Your task to perform on an android device: What's on my calendar tomorrow? Image 0: 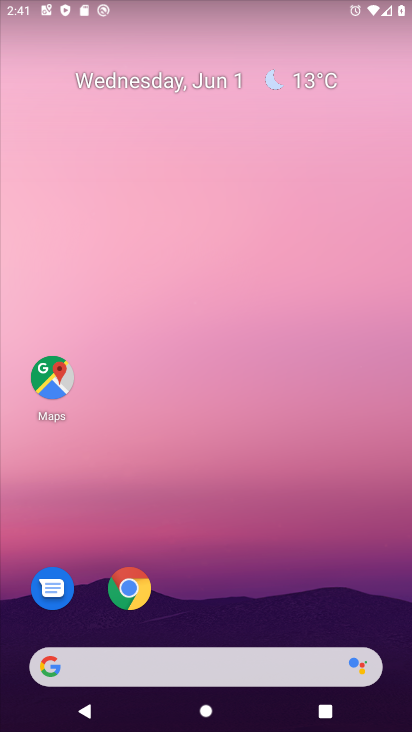
Step 0: drag from (234, 577) to (288, 162)
Your task to perform on an android device: What's on my calendar tomorrow? Image 1: 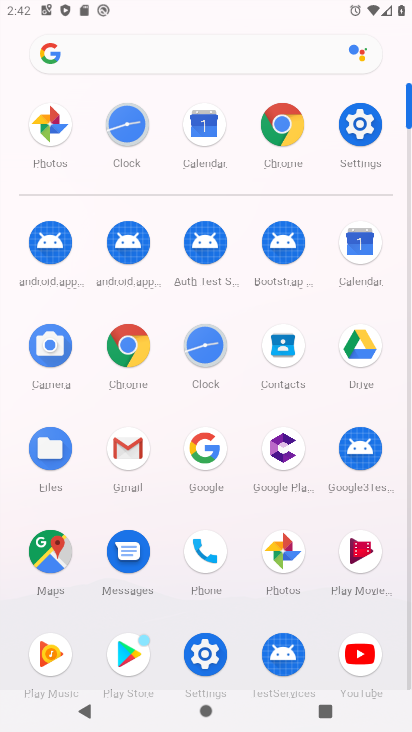
Step 1: click (351, 248)
Your task to perform on an android device: What's on my calendar tomorrow? Image 2: 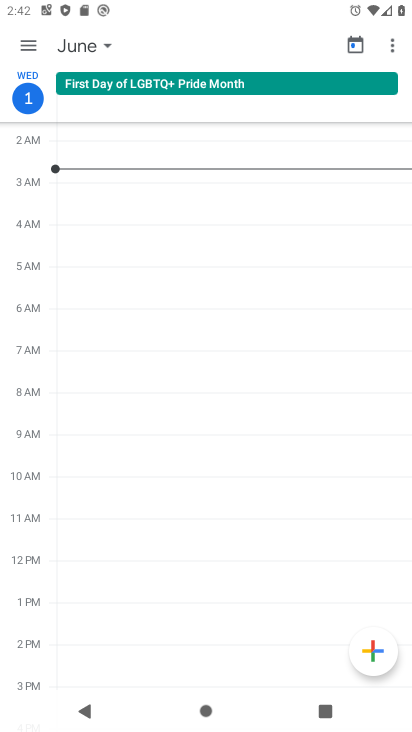
Step 2: click (25, 46)
Your task to perform on an android device: What's on my calendar tomorrow? Image 3: 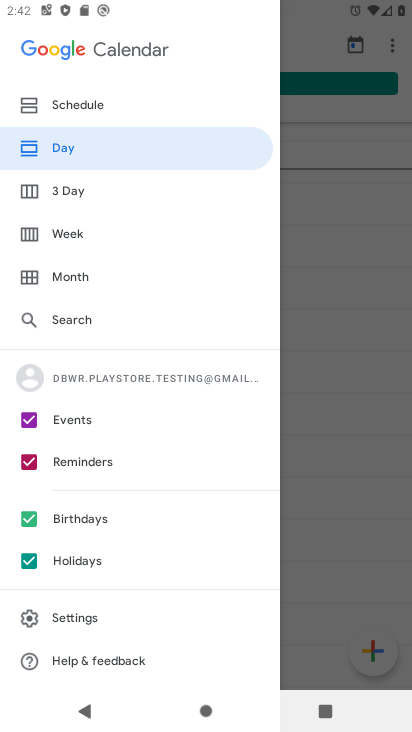
Step 3: click (89, 94)
Your task to perform on an android device: What's on my calendar tomorrow? Image 4: 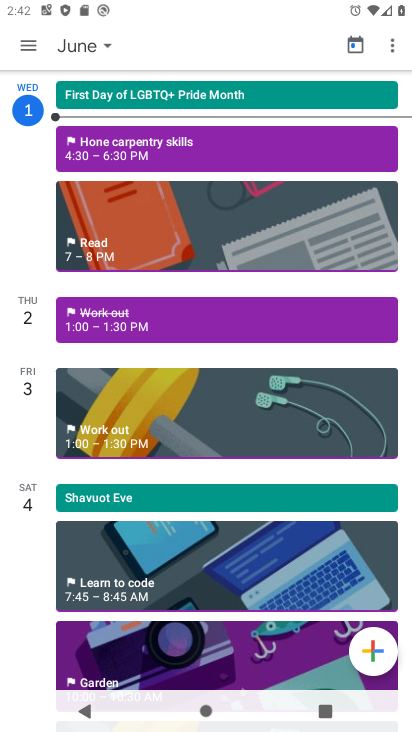
Step 4: click (109, 419)
Your task to perform on an android device: What's on my calendar tomorrow? Image 5: 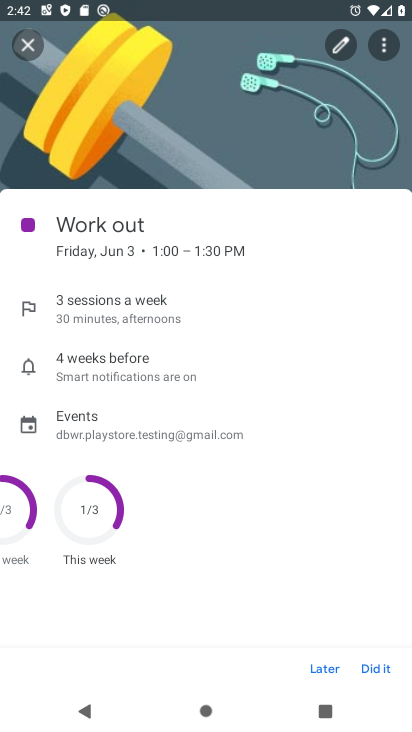
Step 5: click (35, 42)
Your task to perform on an android device: What's on my calendar tomorrow? Image 6: 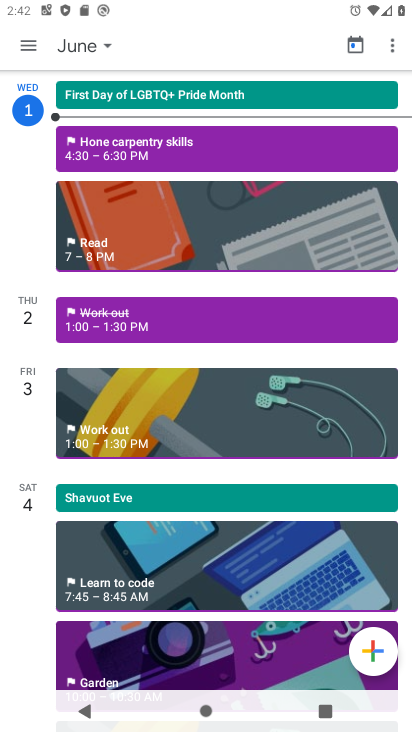
Step 6: click (114, 312)
Your task to perform on an android device: What's on my calendar tomorrow? Image 7: 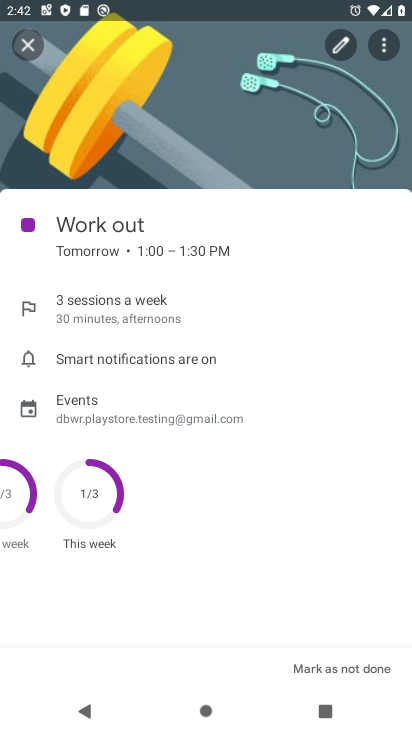
Step 7: task complete